Your task to perform on an android device: Open Chrome and go to settings Image 0: 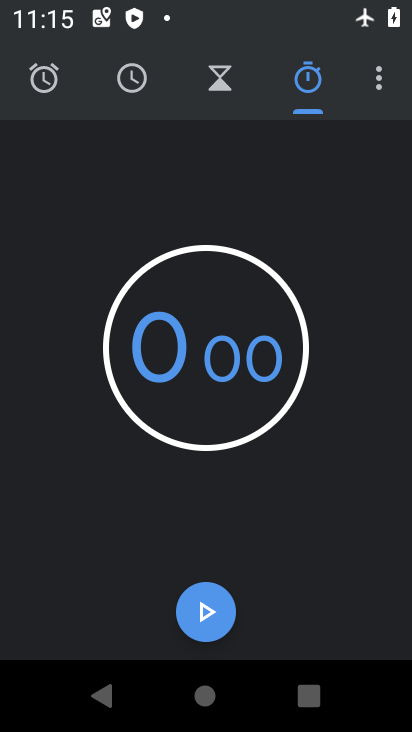
Step 0: click (351, 619)
Your task to perform on an android device: Open Chrome and go to settings Image 1: 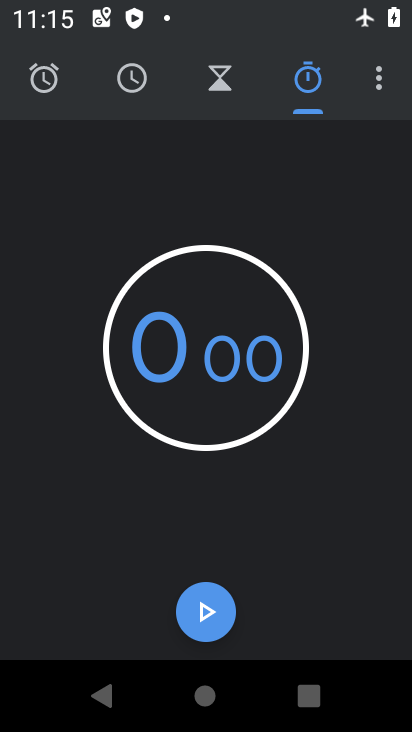
Step 1: press home button
Your task to perform on an android device: Open Chrome and go to settings Image 2: 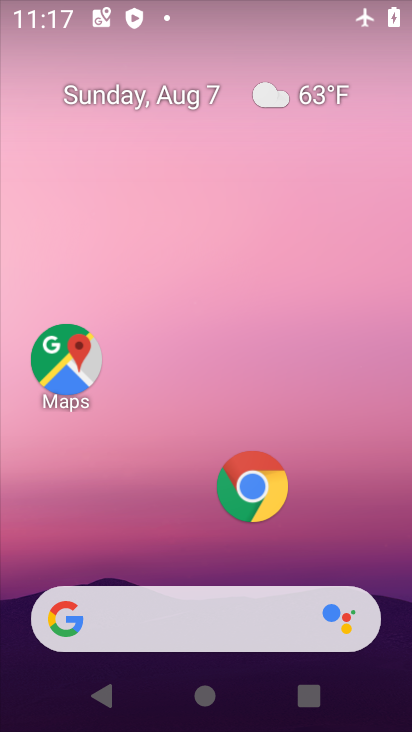
Step 2: click (244, 494)
Your task to perform on an android device: Open Chrome and go to settings Image 3: 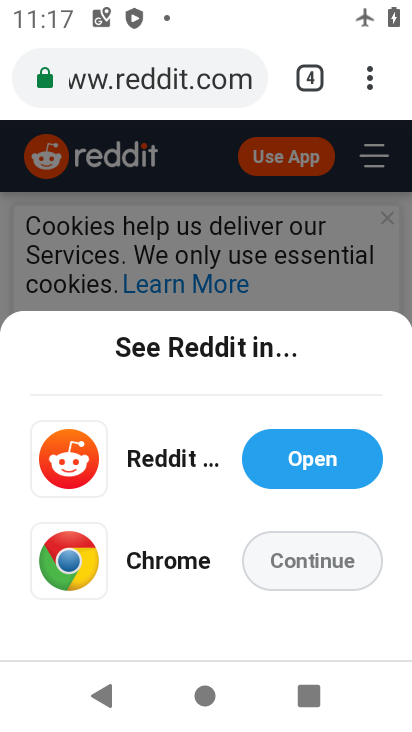
Step 3: click (362, 72)
Your task to perform on an android device: Open Chrome and go to settings Image 4: 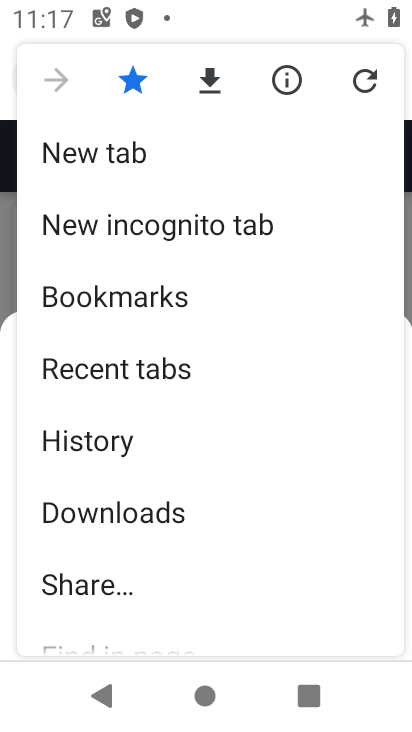
Step 4: drag from (112, 584) to (104, 225)
Your task to perform on an android device: Open Chrome and go to settings Image 5: 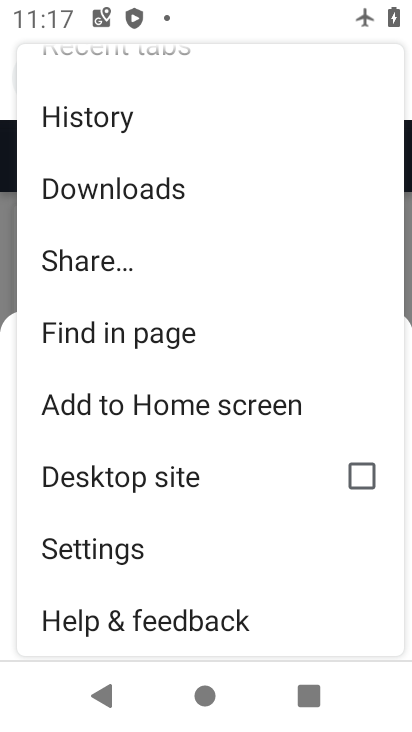
Step 5: click (105, 550)
Your task to perform on an android device: Open Chrome and go to settings Image 6: 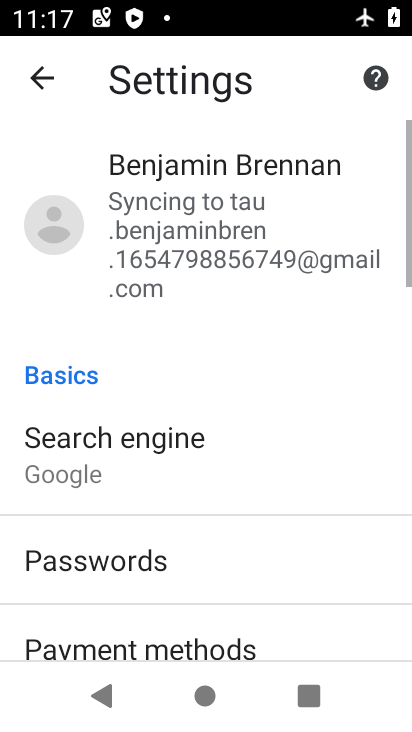
Step 6: task complete